Your task to perform on an android device: Open the map Image 0: 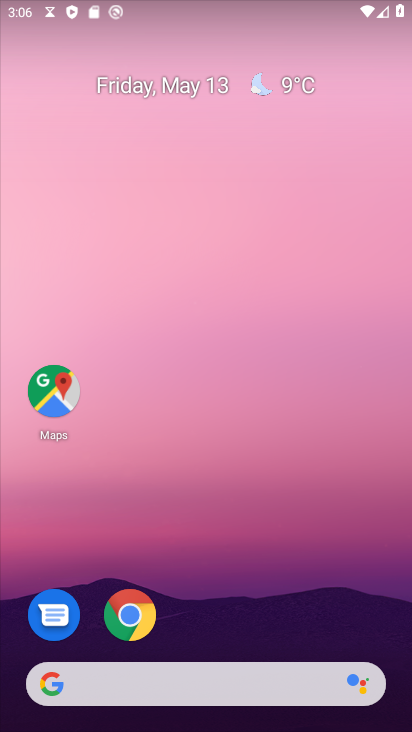
Step 0: drag from (215, 727) to (217, 218)
Your task to perform on an android device: Open the map Image 1: 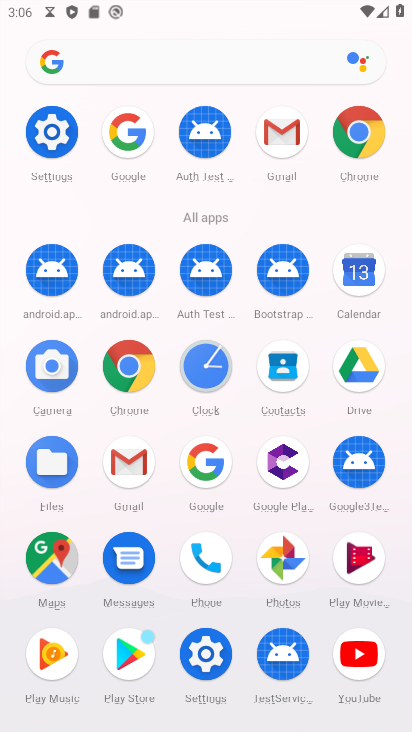
Step 1: click (52, 561)
Your task to perform on an android device: Open the map Image 2: 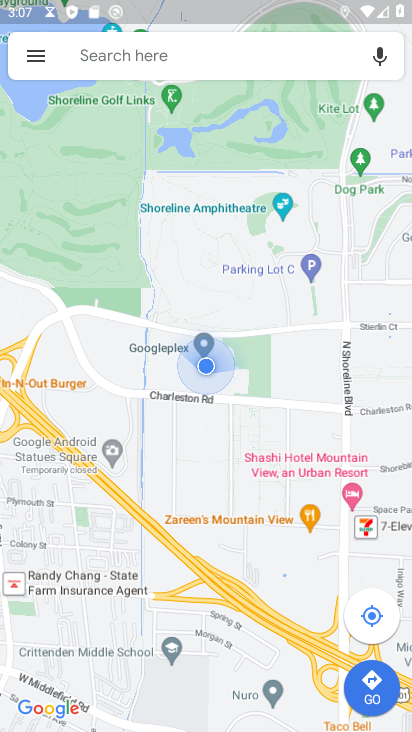
Step 2: task complete